Your task to perform on an android device: open app "Mercado Libre" Image 0: 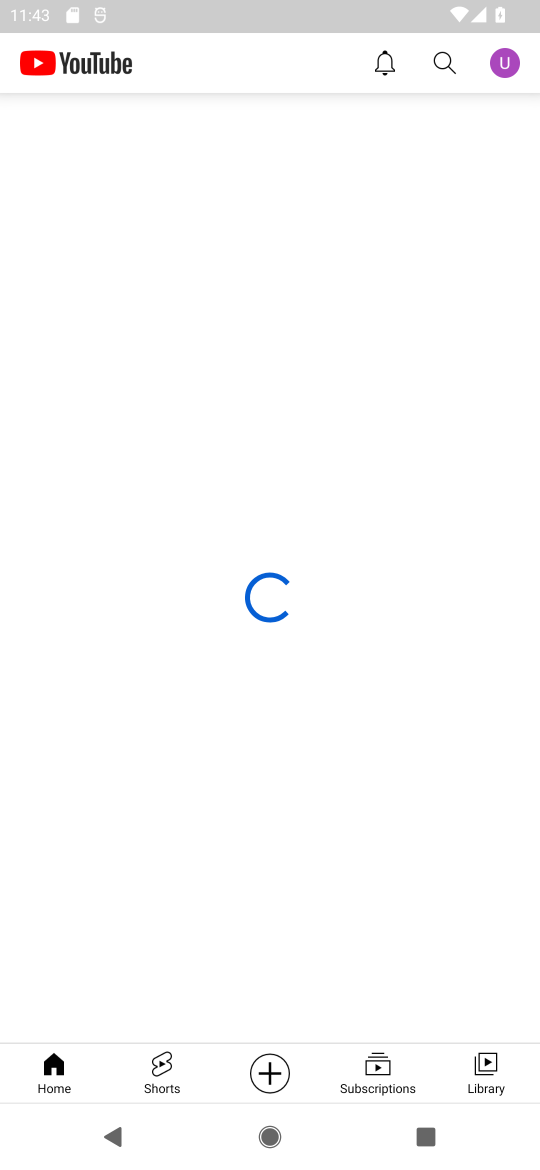
Step 0: press home button
Your task to perform on an android device: open app "Mercado Libre" Image 1: 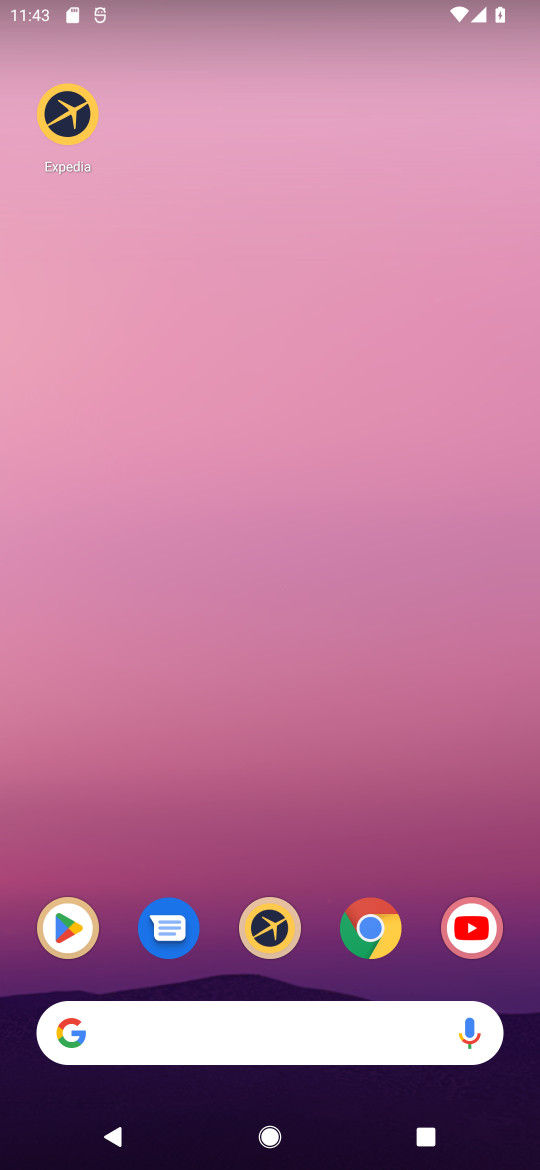
Step 1: drag from (358, 783) to (377, 0)
Your task to perform on an android device: open app "Mercado Libre" Image 2: 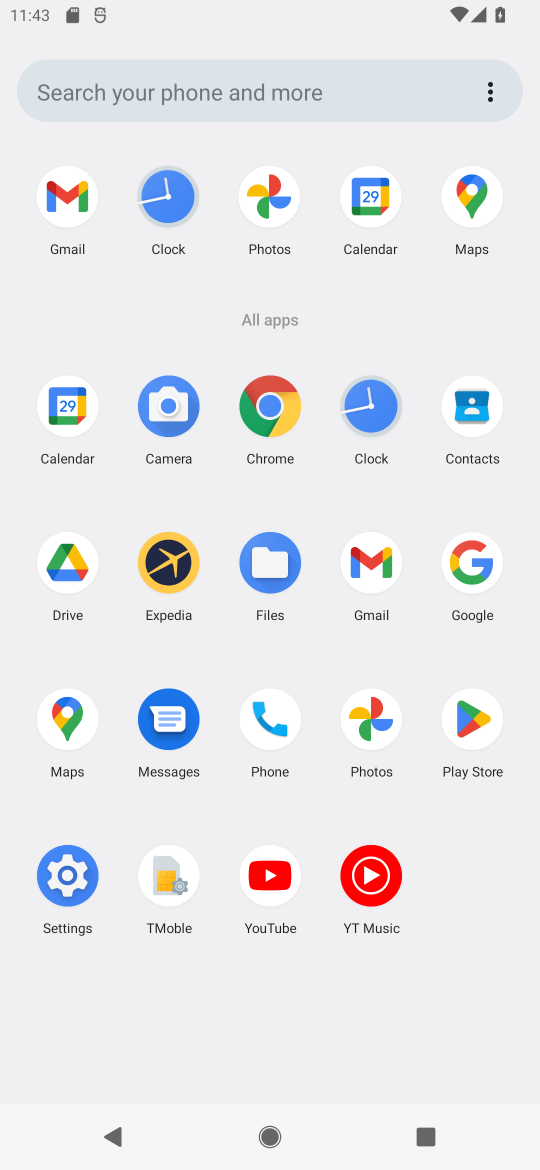
Step 2: click (472, 709)
Your task to perform on an android device: open app "Mercado Libre" Image 3: 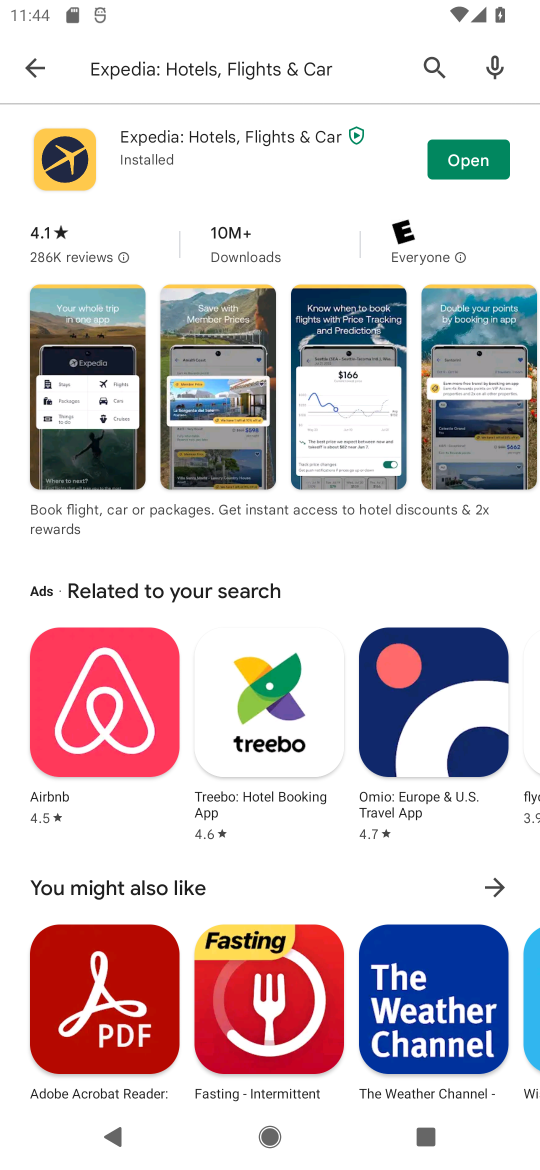
Step 3: click (195, 81)
Your task to perform on an android device: open app "Mercado Libre" Image 4: 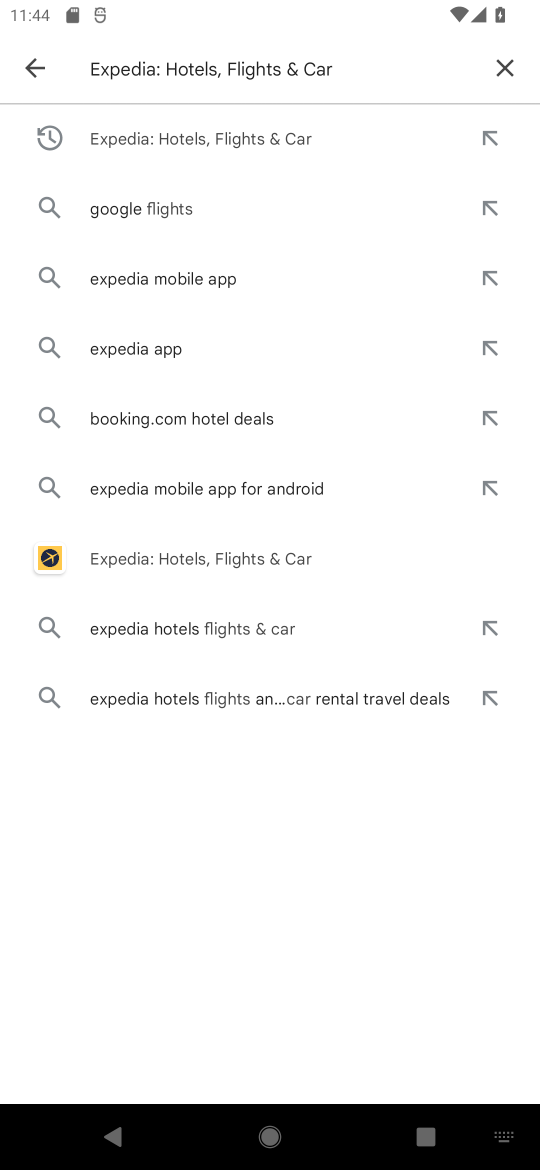
Step 4: click (526, 65)
Your task to perform on an android device: open app "Mercado Libre" Image 5: 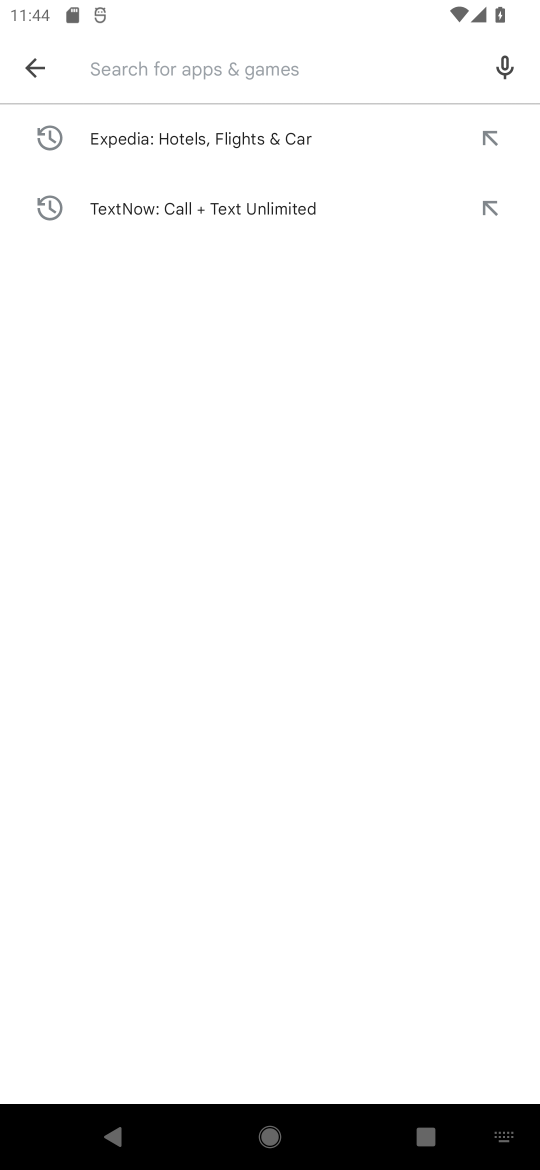
Step 5: type "Mercado Libre"
Your task to perform on an android device: open app "Mercado Libre" Image 6: 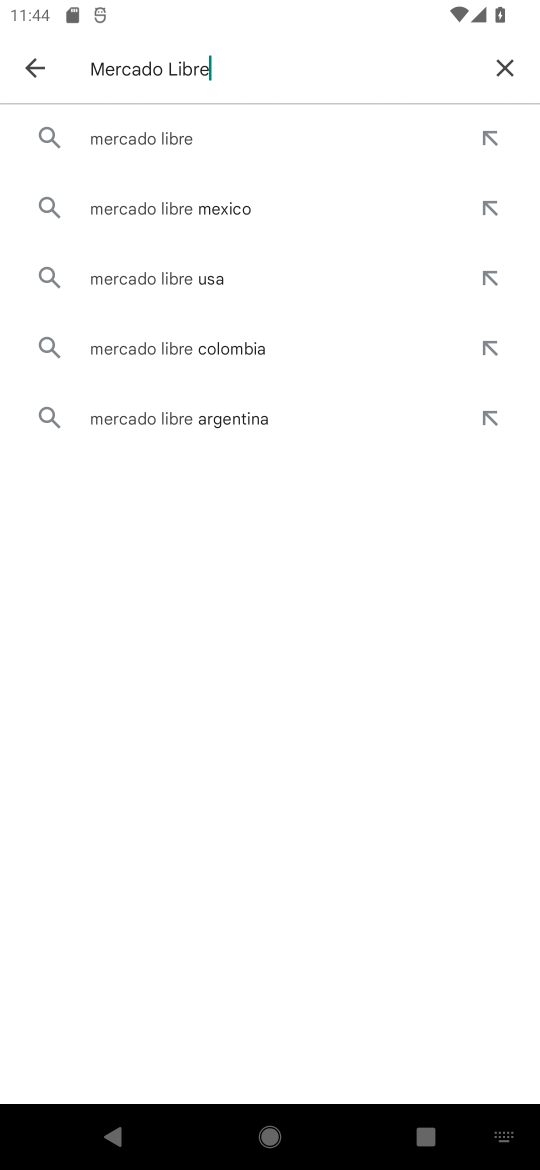
Step 6: press enter
Your task to perform on an android device: open app "Mercado Libre" Image 7: 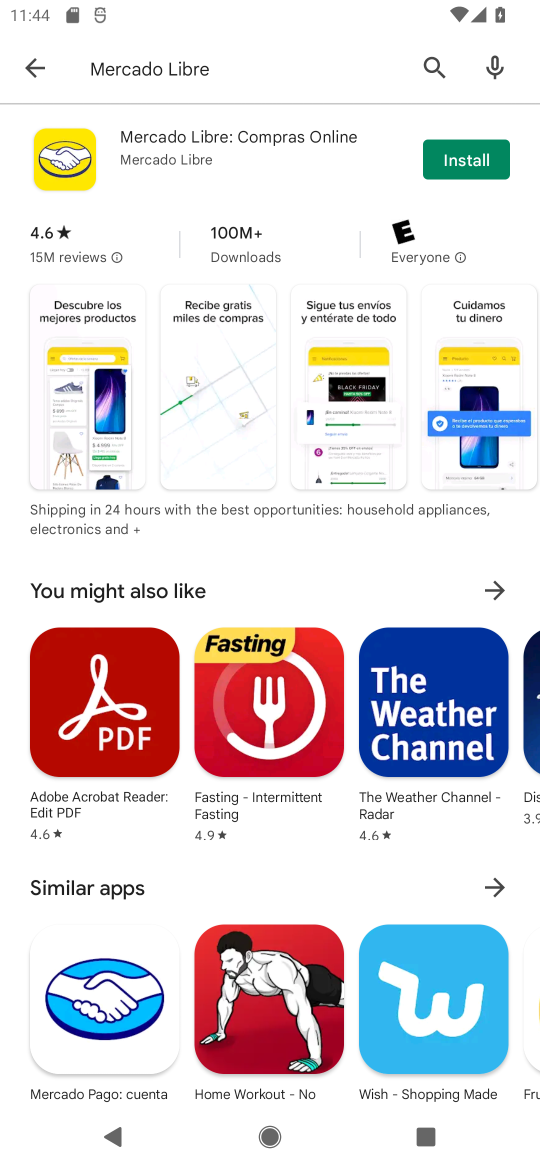
Step 7: task complete